Your task to perform on an android device: turn on javascript in the chrome app Image 0: 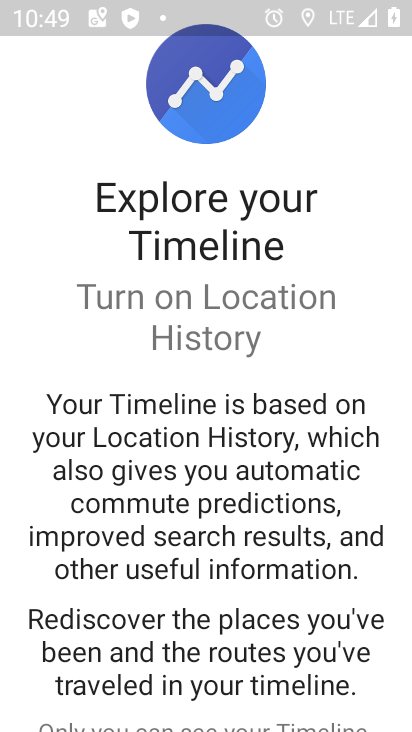
Step 0: press home button
Your task to perform on an android device: turn on javascript in the chrome app Image 1: 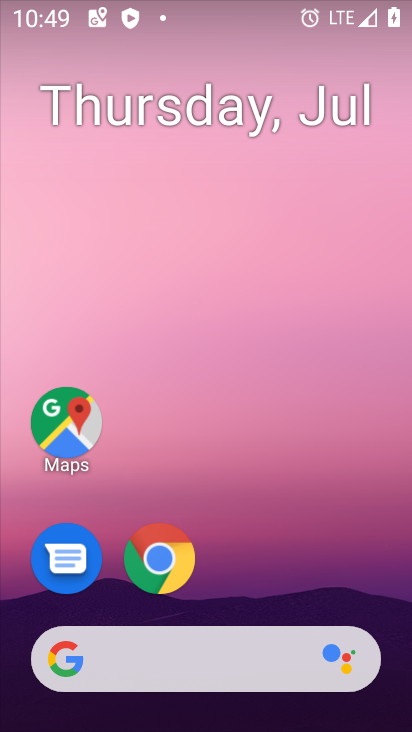
Step 1: drag from (357, 565) to (349, 84)
Your task to perform on an android device: turn on javascript in the chrome app Image 2: 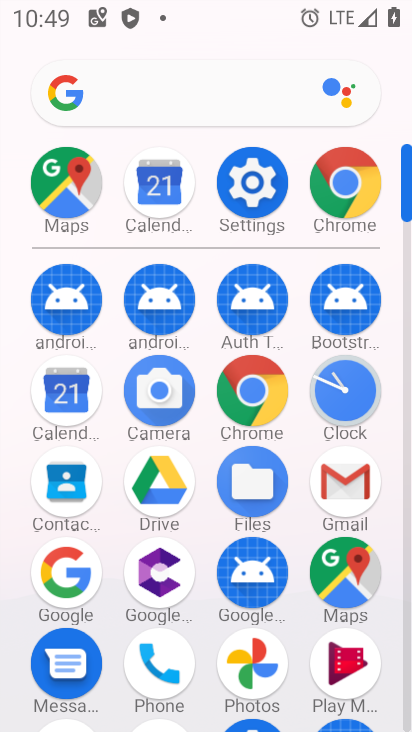
Step 2: click (261, 394)
Your task to perform on an android device: turn on javascript in the chrome app Image 3: 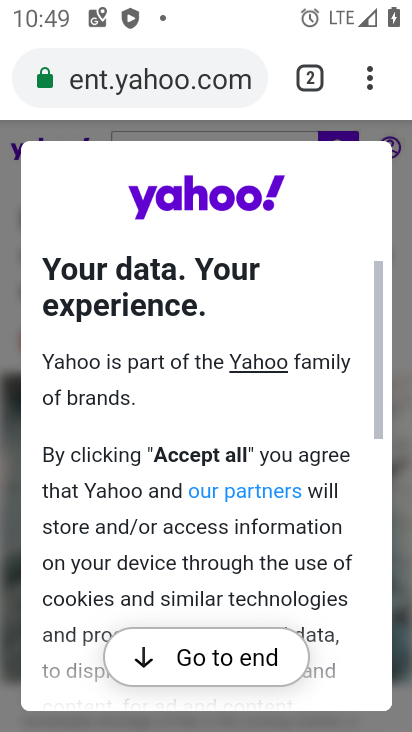
Step 3: click (373, 90)
Your task to perform on an android device: turn on javascript in the chrome app Image 4: 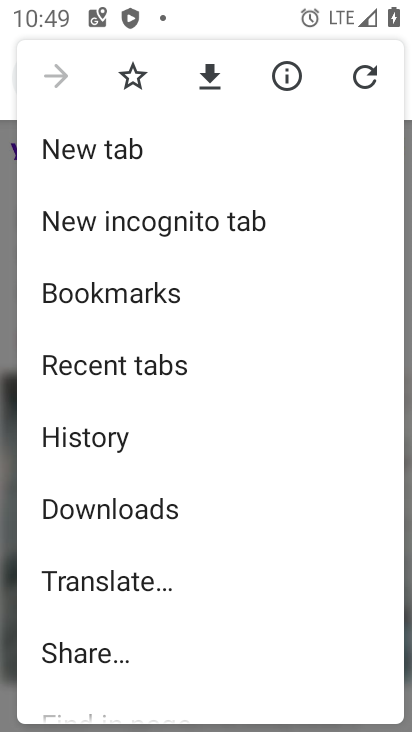
Step 4: drag from (311, 399) to (320, 303)
Your task to perform on an android device: turn on javascript in the chrome app Image 5: 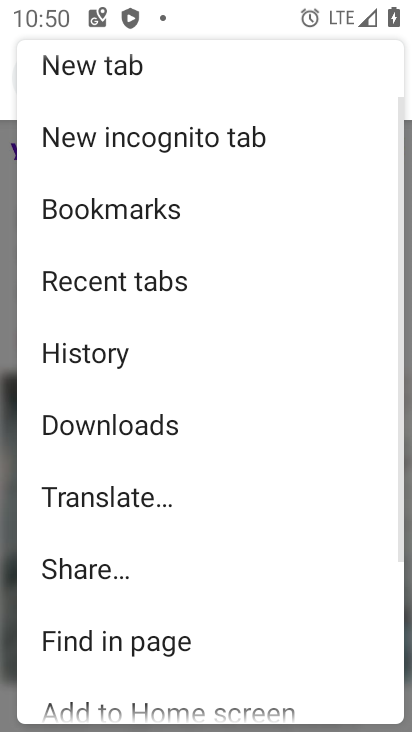
Step 5: drag from (320, 433) to (325, 351)
Your task to perform on an android device: turn on javascript in the chrome app Image 6: 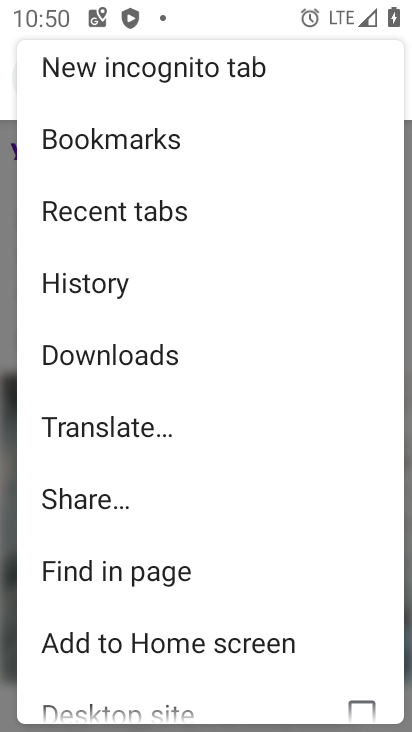
Step 6: drag from (329, 460) to (333, 372)
Your task to perform on an android device: turn on javascript in the chrome app Image 7: 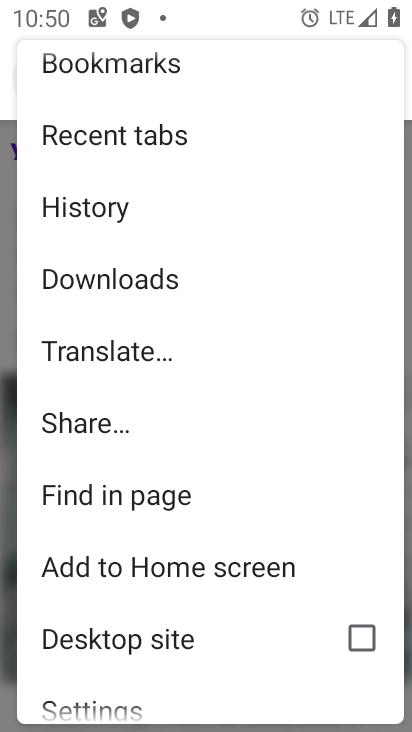
Step 7: drag from (330, 468) to (334, 401)
Your task to perform on an android device: turn on javascript in the chrome app Image 8: 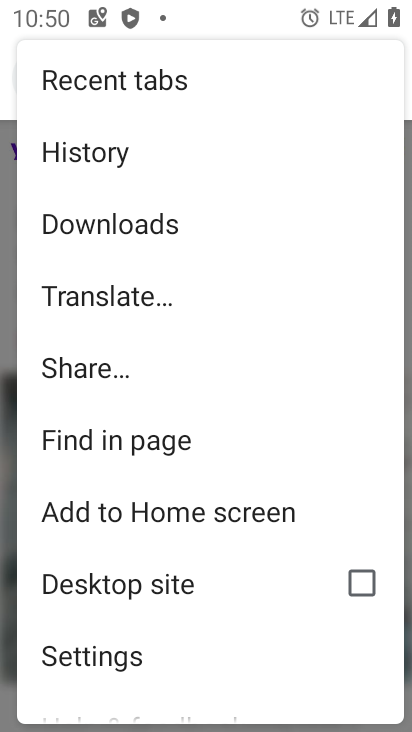
Step 8: drag from (334, 490) to (337, 414)
Your task to perform on an android device: turn on javascript in the chrome app Image 9: 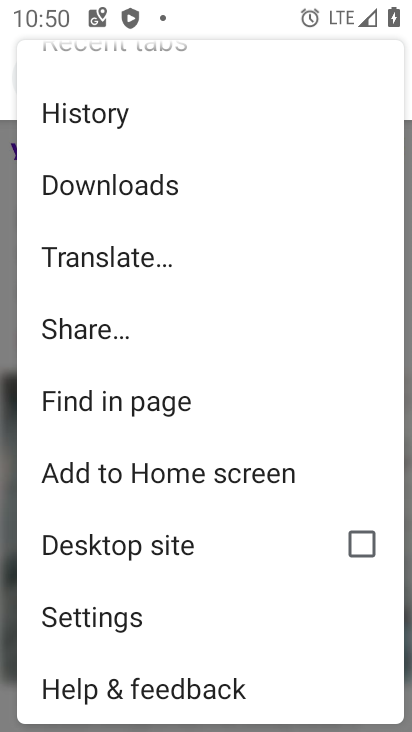
Step 9: click (179, 631)
Your task to perform on an android device: turn on javascript in the chrome app Image 10: 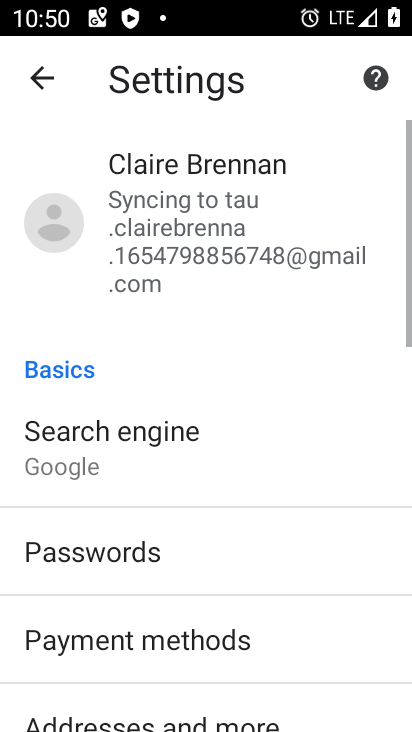
Step 10: drag from (288, 575) to (299, 493)
Your task to perform on an android device: turn on javascript in the chrome app Image 11: 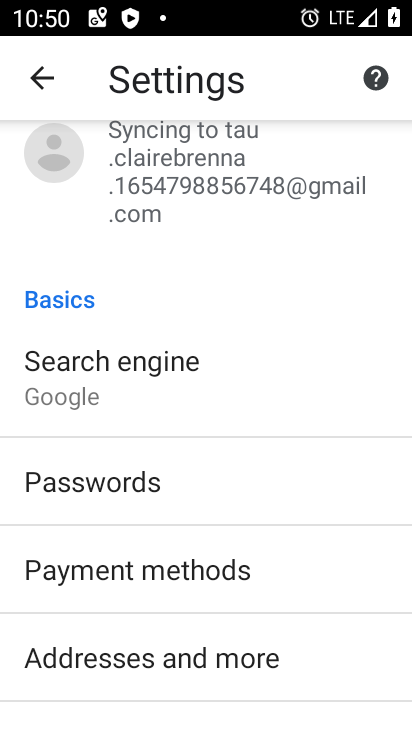
Step 11: drag from (332, 596) to (336, 514)
Your task to perform on an android device: turn on javascript in the chrome app Image 12: 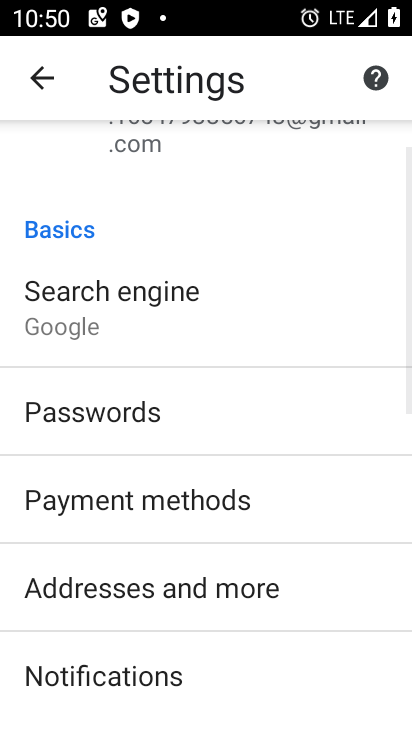
Step 12: drag from (342, 605) to (350, 494)
Your task to perform on an android device: turn on javascript in the chrome app Image 13: 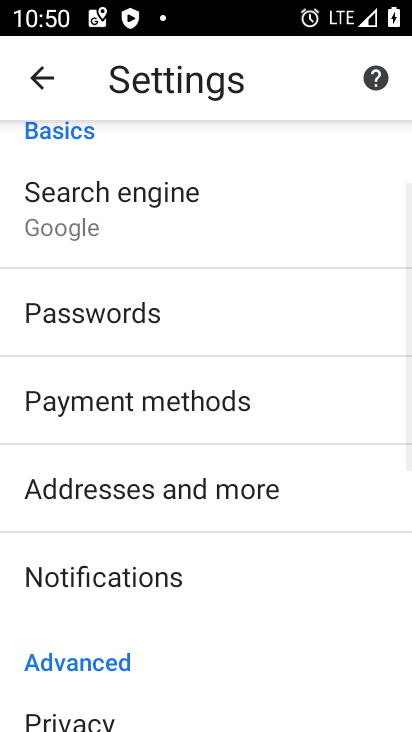
Step 13: drag from (349, 583) to (357, 481)
Your task to perform on an android device: turn on javascript in the chrome app Image 14: 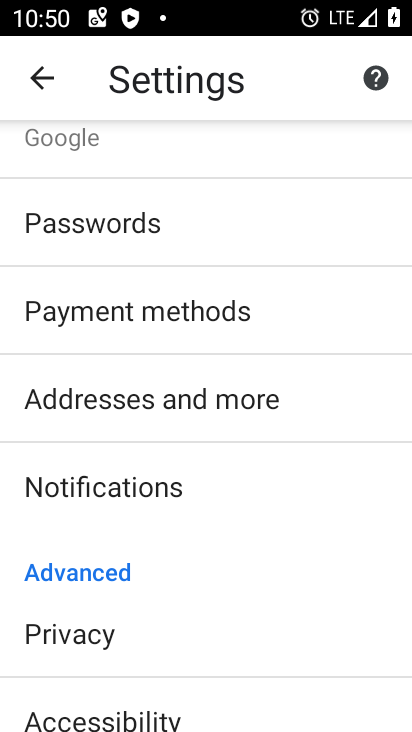
Step 14: drag from (335, 577) to (339, 453)
Your task to perform on an android device: turn on javascript in the chrome app Image 15: 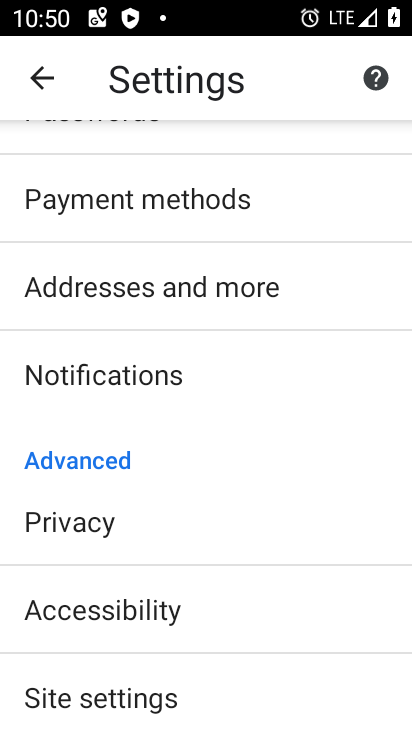
Step 15: drag from (322, 587) to (328, 490)
Your task to perform on an android device: turn on javascript in the chrome app Image 16: 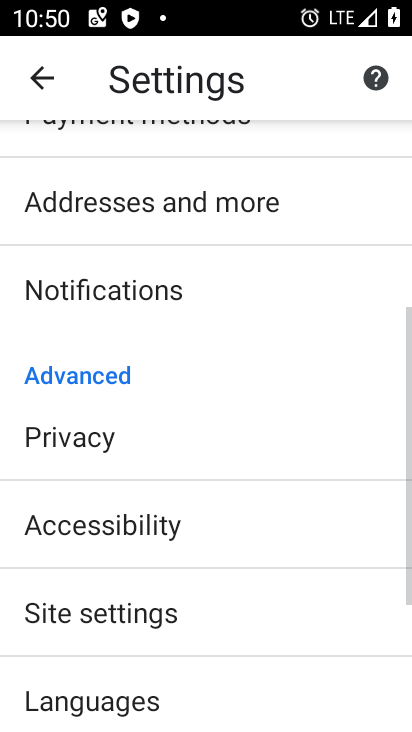
Step 16: drag from (322, 587) to (323, 482)
Your task to perform on an android device: turn on javascript in the chrome app Image 17: 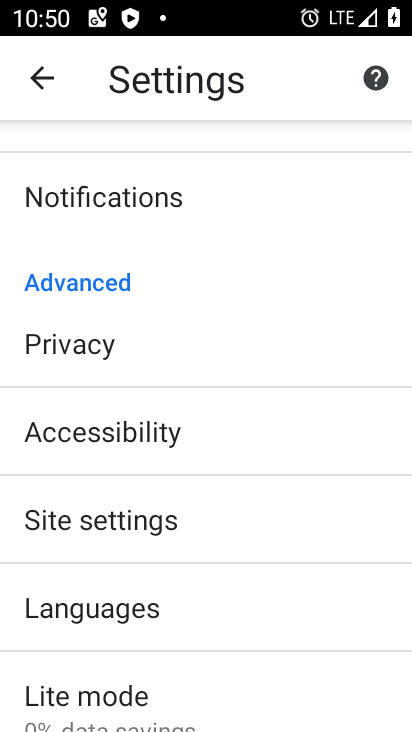
Step 17: drag from (323, 592) to (322, 474)
Your task to perform on an android device: turn on javascript in the chrome app Image 18: 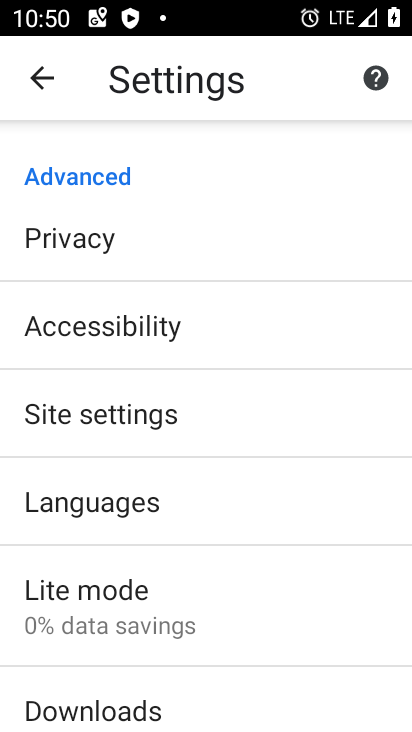
Step 18: click (323, 430)
Your task to perform on an android device: turn on javascript in the chrome app Image 19: 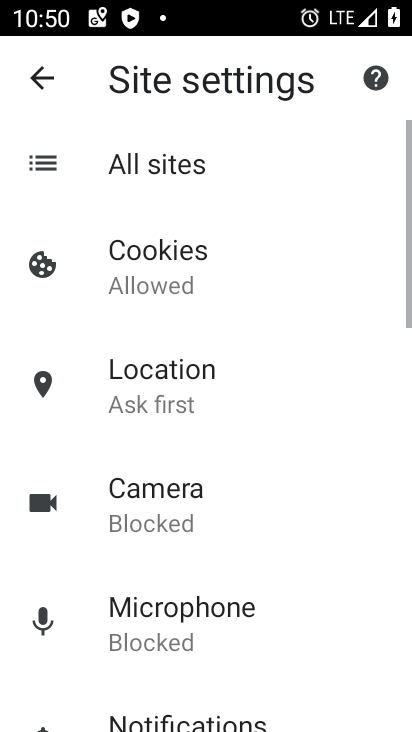
Step 19: drag from (300, 544) to (302, 443)
Your task to perform on an android device: turn on javascript in the chrome app Image 20: 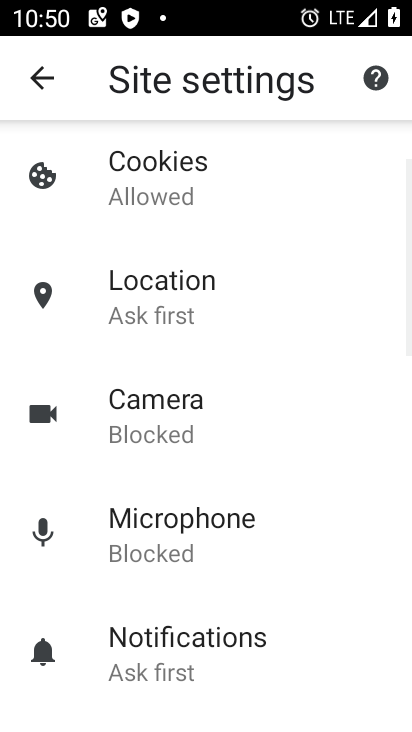
Step 20: drag from (304, 560) to (305, 473)
Your task to perform on an android device: turn on javascript in the chrome app Image 21: 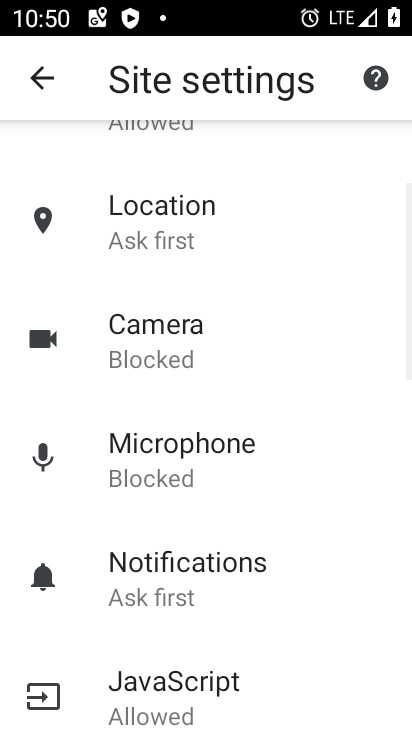
Step 21: drag from (304, 569) to (308, 458)
Your task to perform on an android device: turn on javascript in the chrome app Image 22: 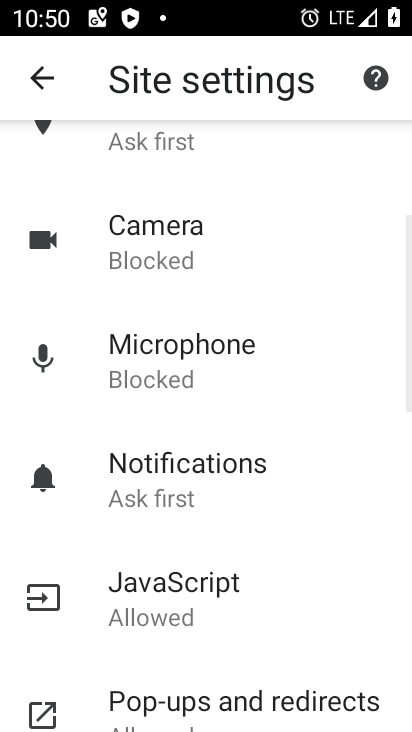
Step 22: drag from (320, 566) to (337, 454)
Your task to perform on an android device: turn on javascript in the chrome app Image 23: 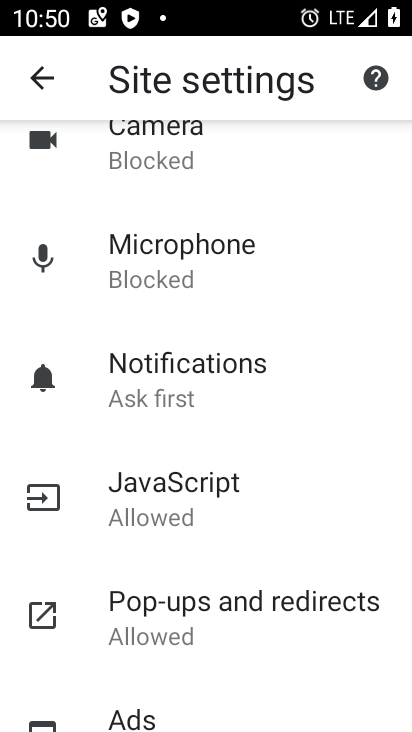
Step 23: drag from (337, 518) to (346, 331)
Your task to perform on an android device: turn on javascript in the chrome app Image 24: 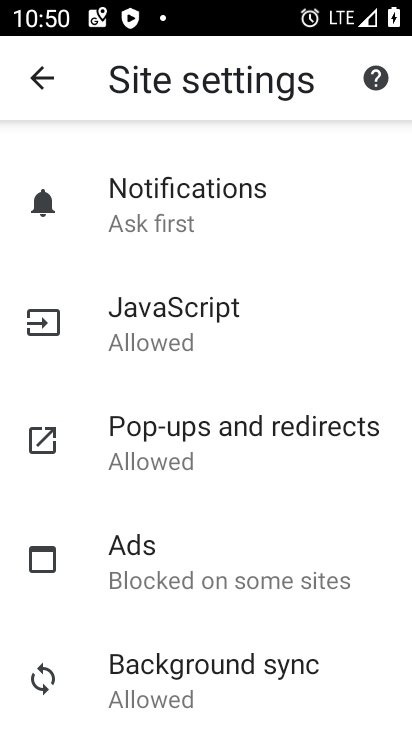
Step 24: click (334, 323)
Your task to perform on an android device: turn on javascript in the chrome app Image 25: 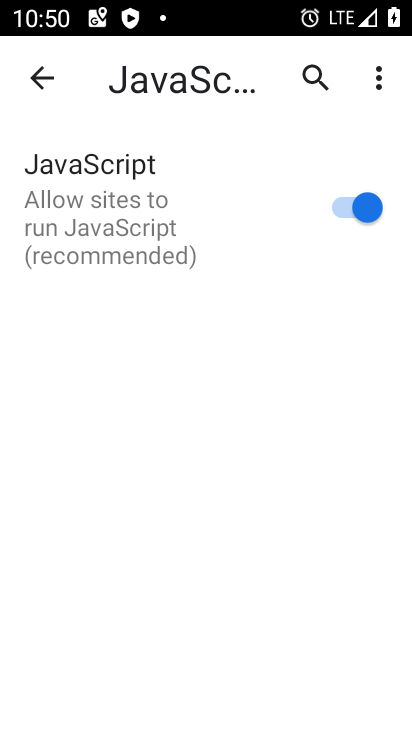
Step 25: task complete